Your task to perform on an android device: change the upload size in google photos Image 0: 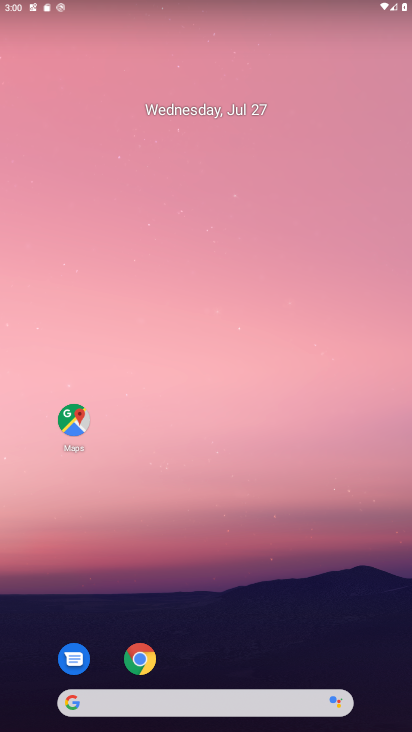
Step 0: drag from (180, 657) to (138, 21)
Your task to perform on an android device: change the upload size in google photos Image 1: 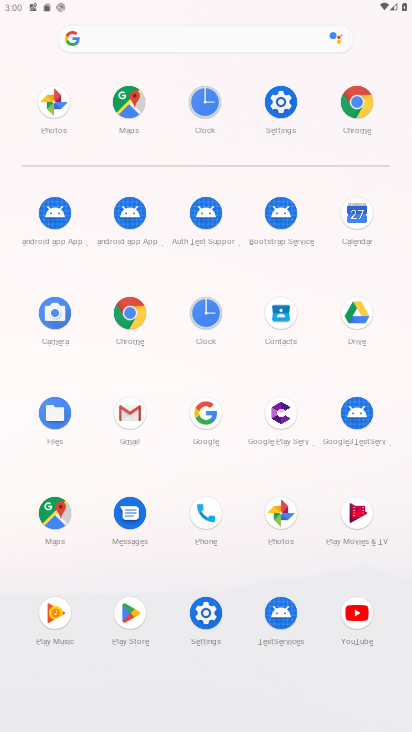
Step 1: click (295, 518)
Your task to perform on an android device: change the upload size in google photos Image 2: 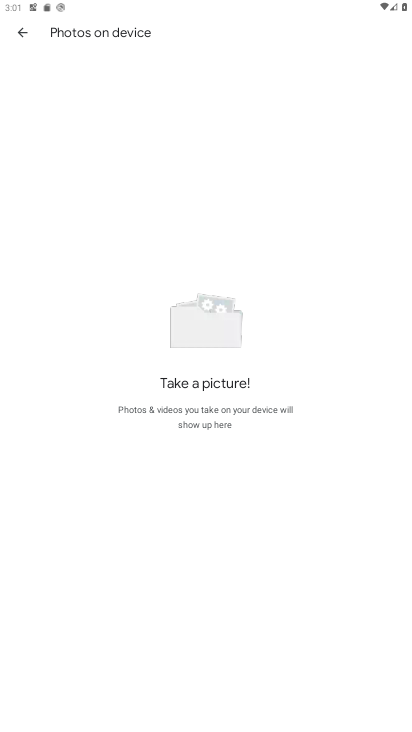
Step 2: click (20, 37)
Your task to perform on an android device: change the upload size in google photos Image 3: 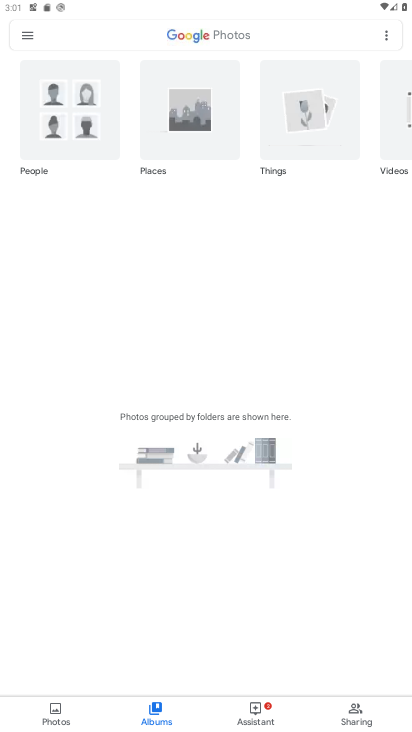
Step 3: click (20, 37)
Your task to perform on an android device: change the upload size in google photos Image 4: 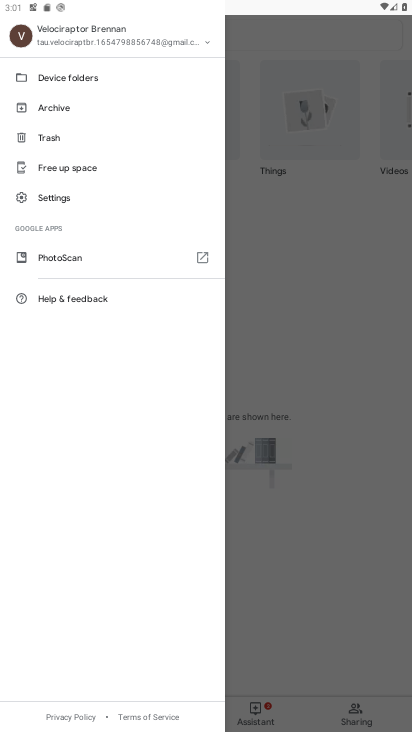
Step 4: click (49, 201)
Your task to perform on an android device: change the upload size in google photos Image 5: 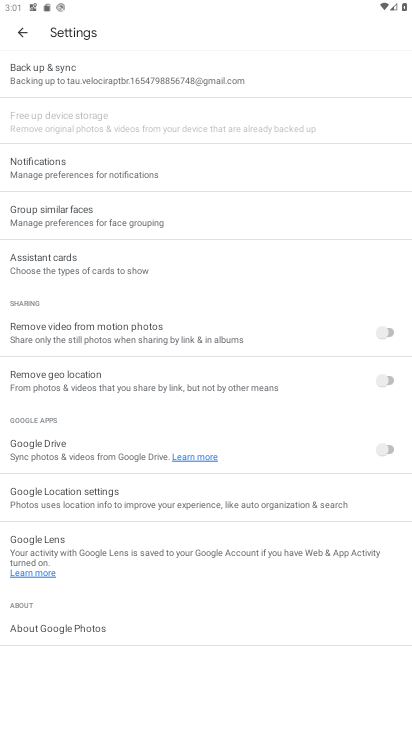
Step 5: click (55, 80)
Your task to perform on an android device: change the upload size in google photos Image 6: 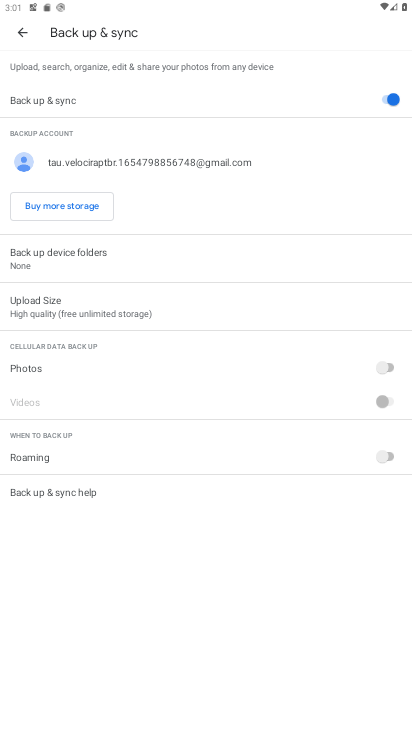
Step 6: click (69, 303)
Your task to perform on an android device: change the upload size in google photos Image 7: 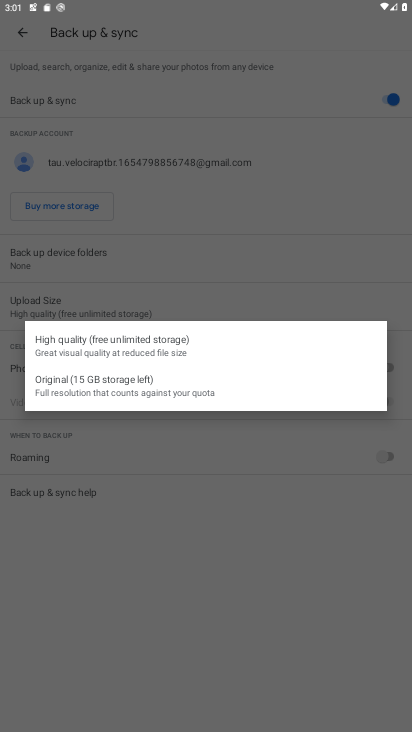
Step 7: click (51, 394)
Your task to perform on an android device: change the upload size in google photos Image 8: 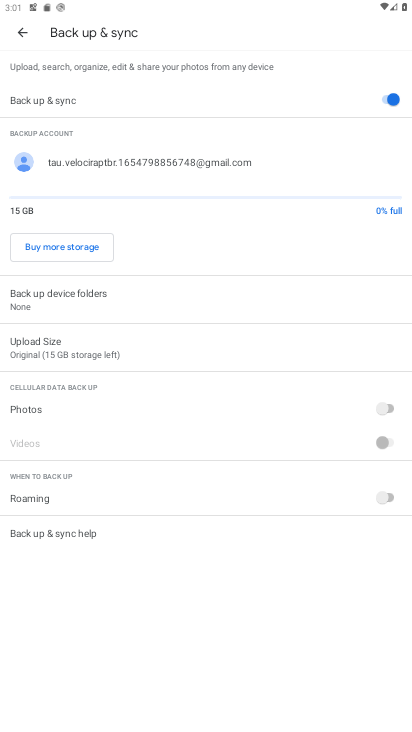
Step 8: task complete